Your task to perform on an android device: Open Google Image 0: 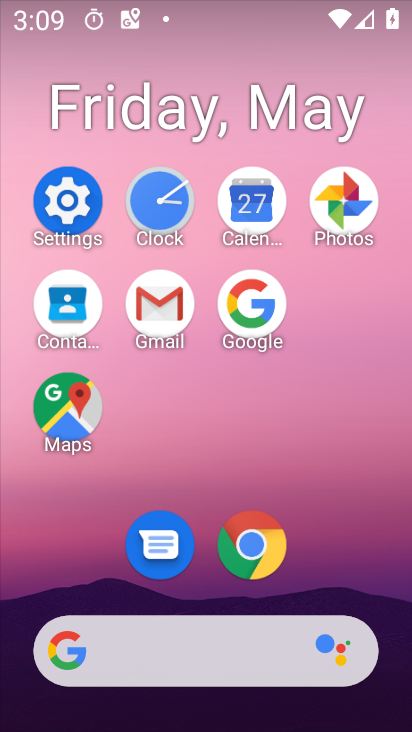
Step 0: click (257, 290)
Your task to perform on an android device: Open Google Image 1: 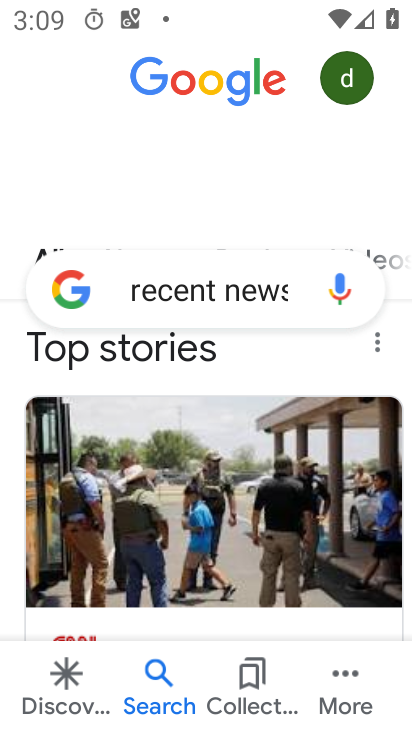
Step 1: task complete